Your task to perform on an android device: Go to settings Image 0: 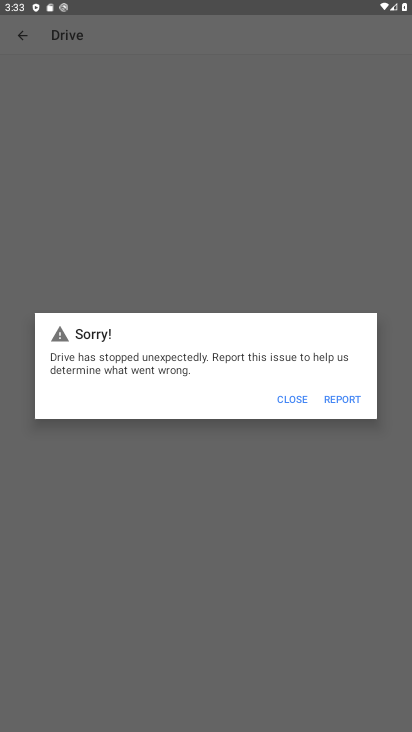
Step 0: press home button
Your task to perform on an android device: Go to settings Image 1: 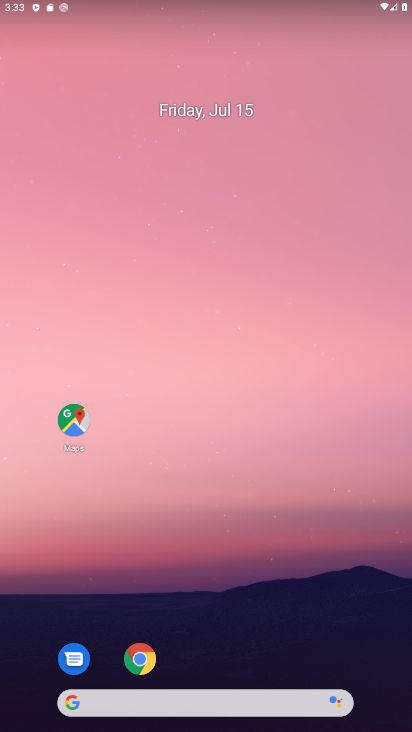
Step 1: drag from (210, 629) to (168, 84)
Your task to perform on an android device: Go to settings Image 2: 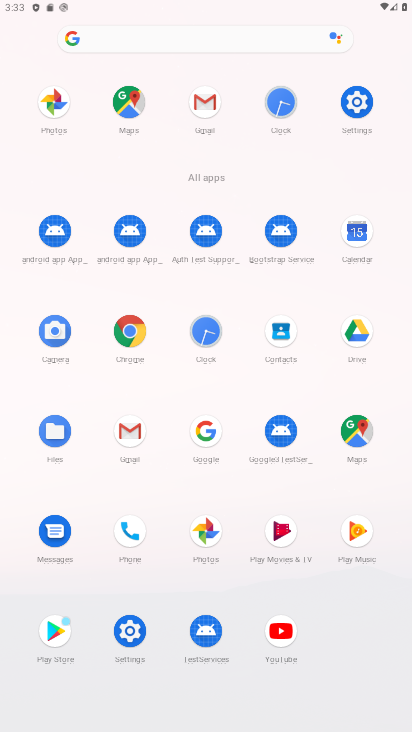
Step 2: click (350, 106)
Your task to perform on an android device: Go to settings Image 3: 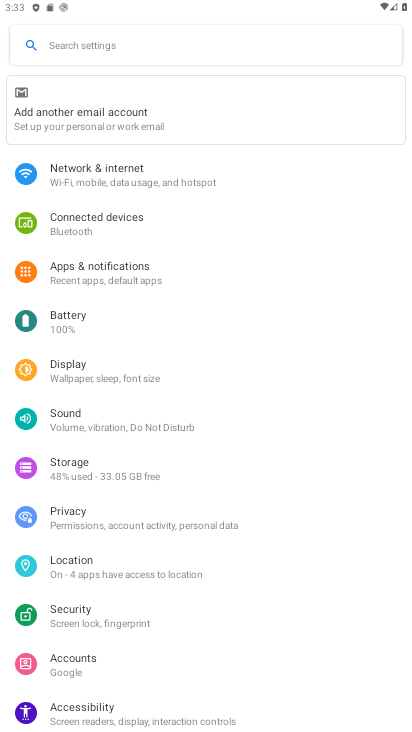
Step 3: task complete